Your task to perform on an android device: Search for the best selling TV on Best Buy. Image 0: 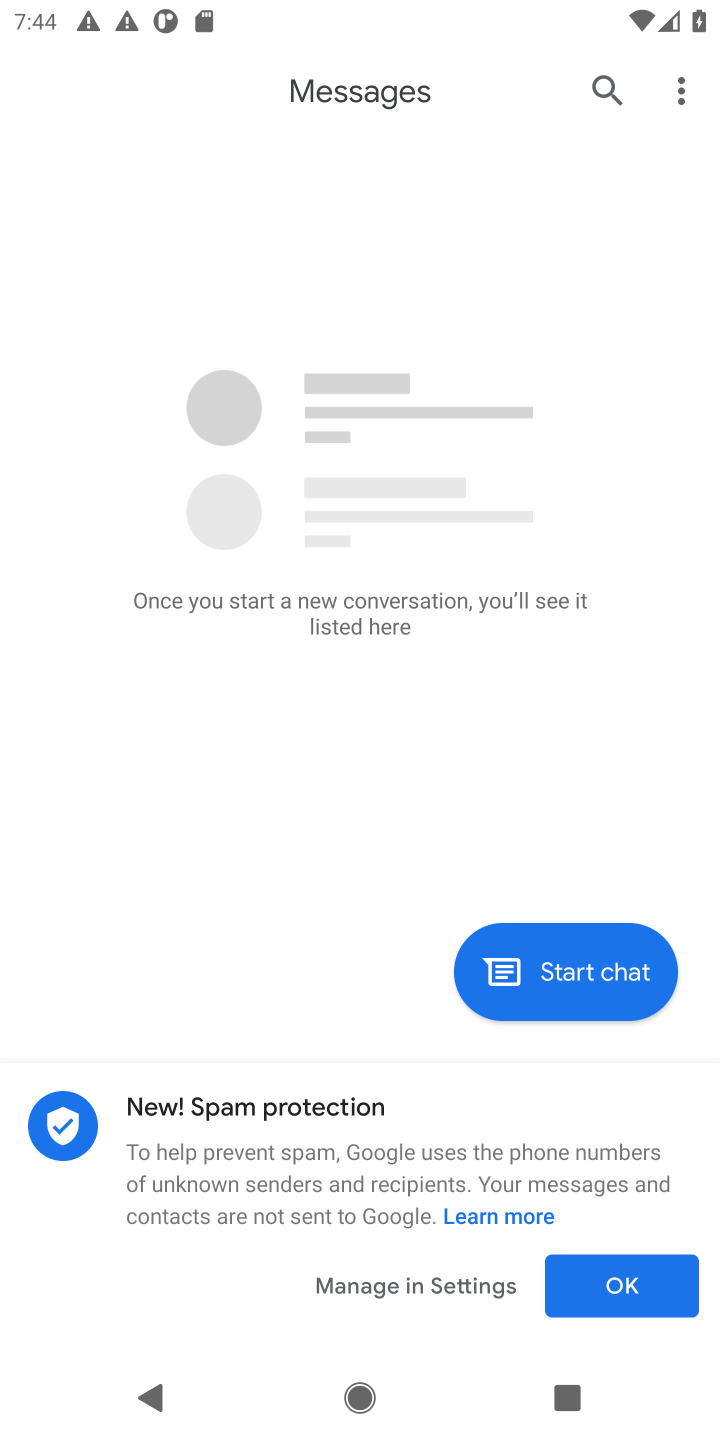
Step 0: press home button
Your task to perform on an android device: Search for the best selling TV on Best Buy. Image 1: 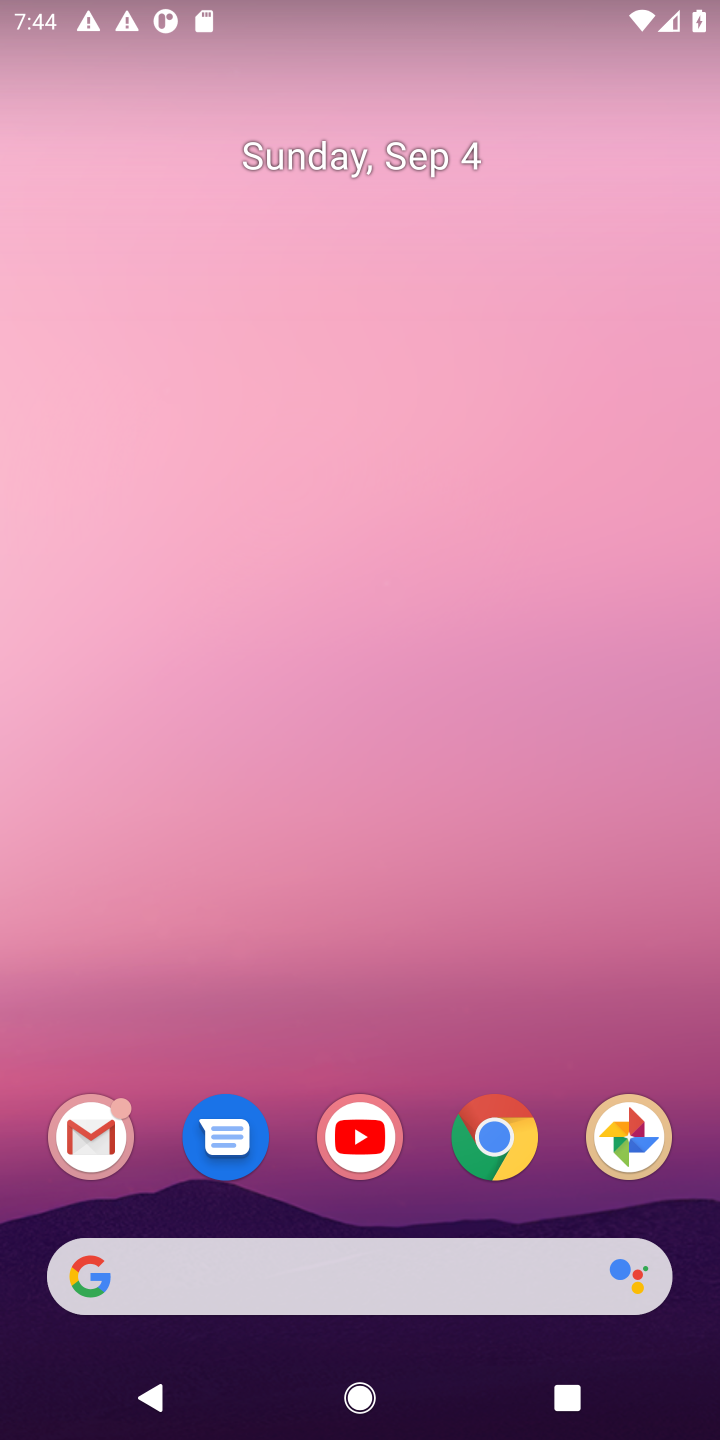
Step 1: click (496, 1140)
Your task to perform on an android device: Search for the best selling TV on Best Buy. Image 2: 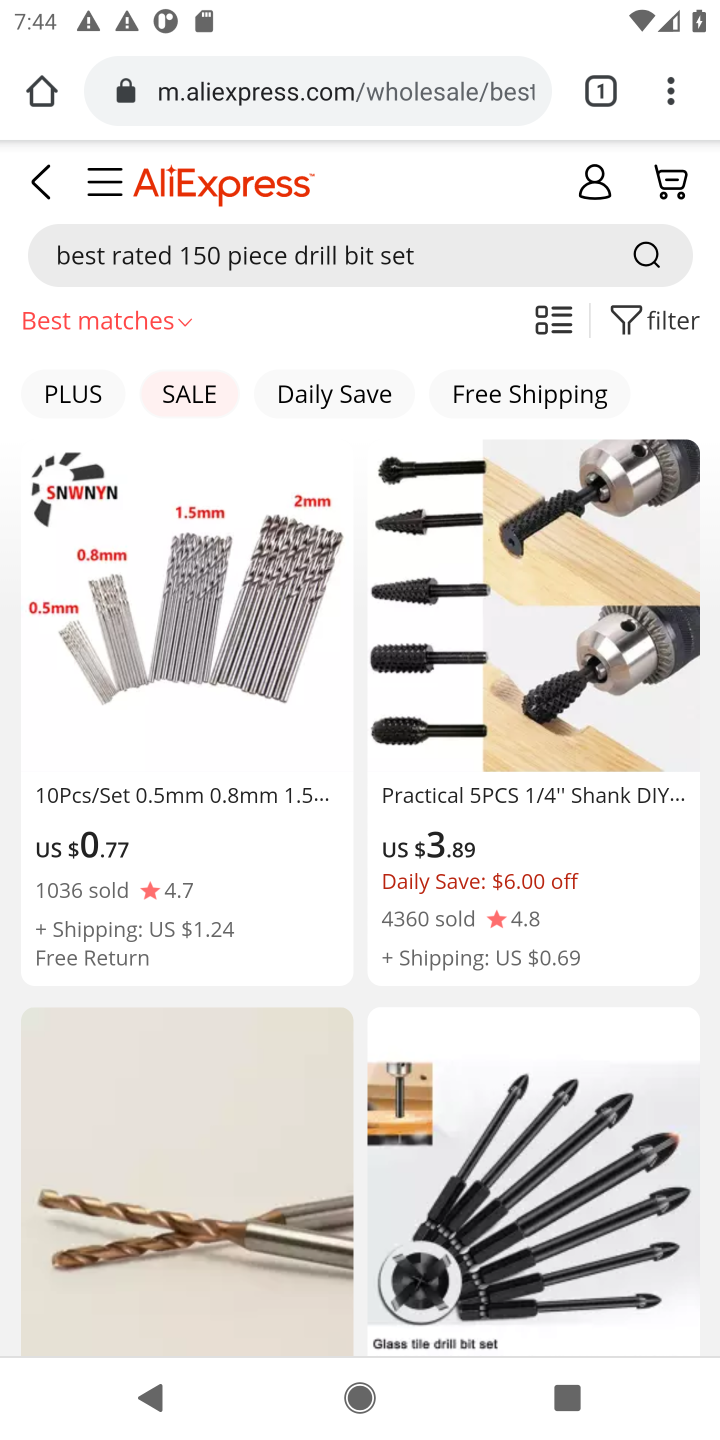
Step 2: click (396, 82)
Your task to perform on an android device: Search for the best selling TV on Best Buy. Image 3: 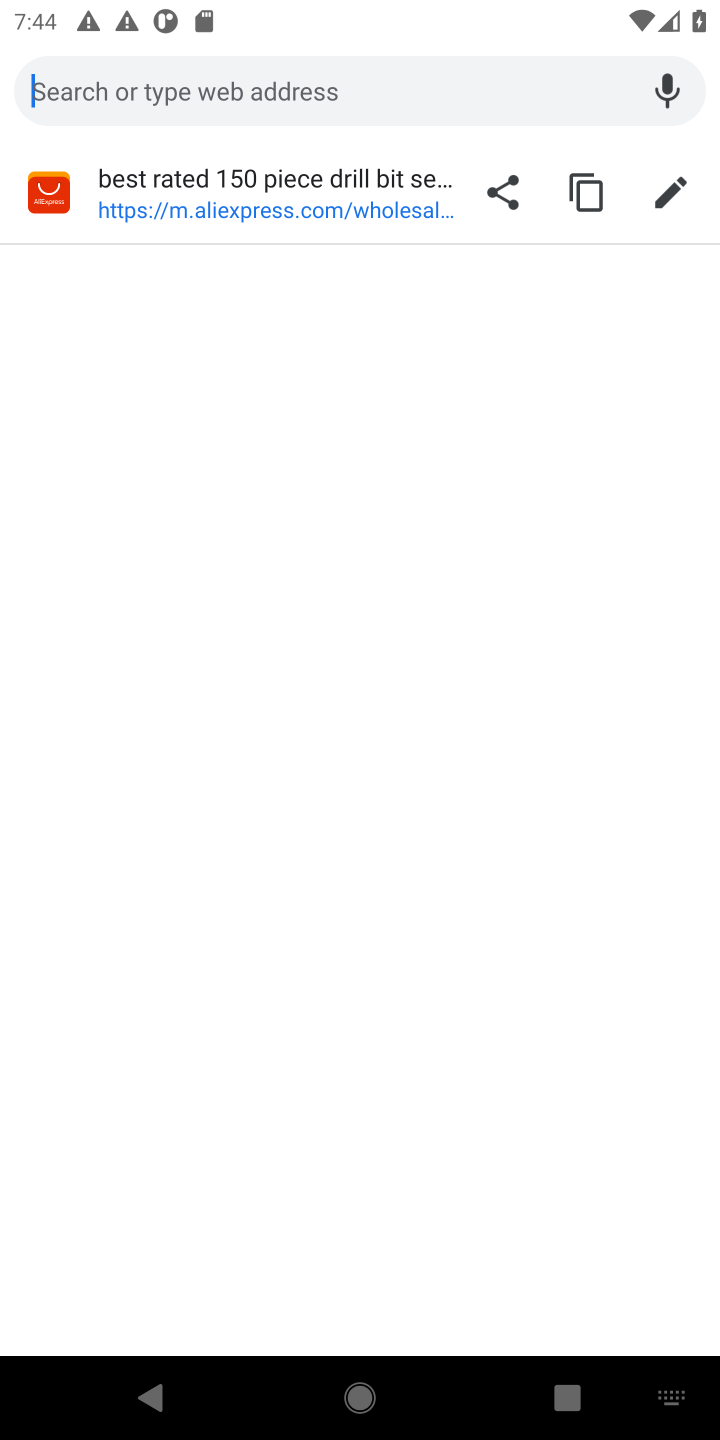
Step 3: type "Best Buy"
Your task to perform on an android device: Search for the best selling TV on Best Buy. Image 4: 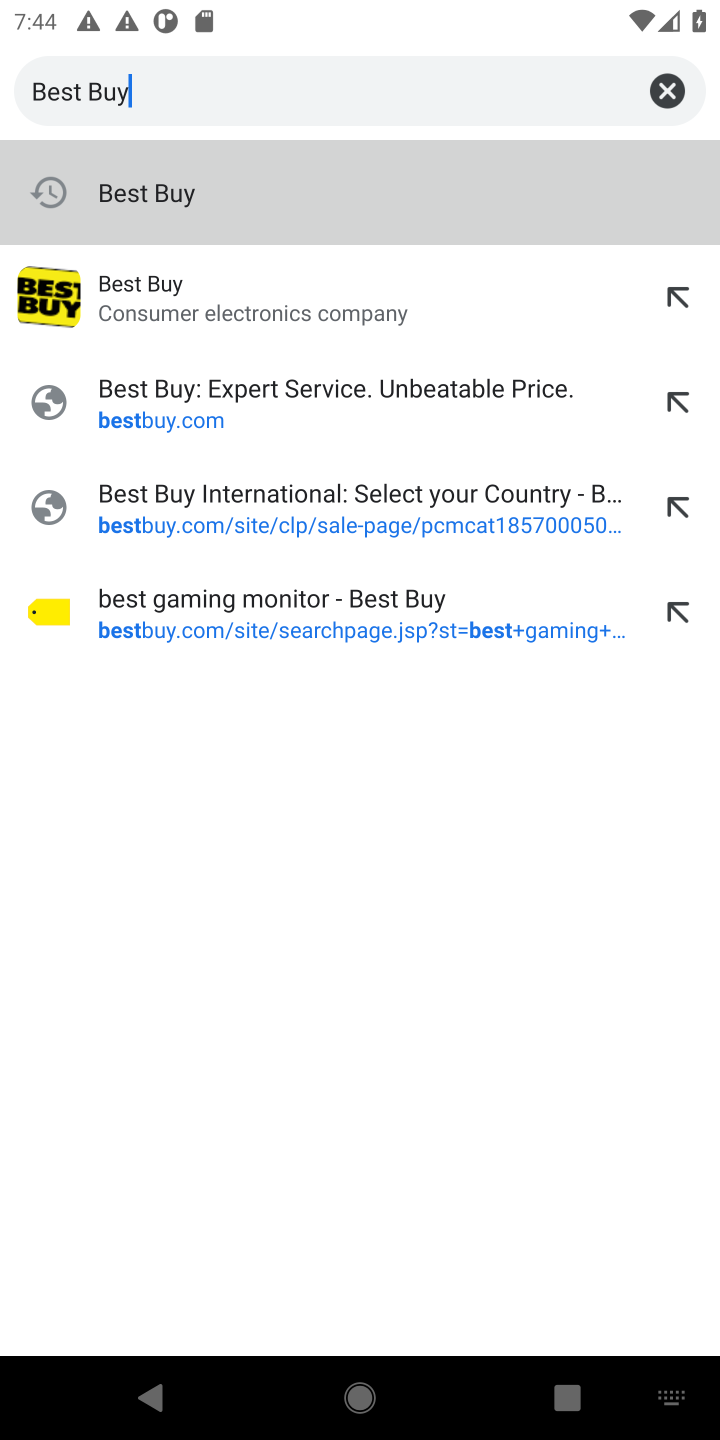
Step 4: click (267, 229)
Your task to perform on an android device: Search for the best selling TV on Best Buy. Image 5: 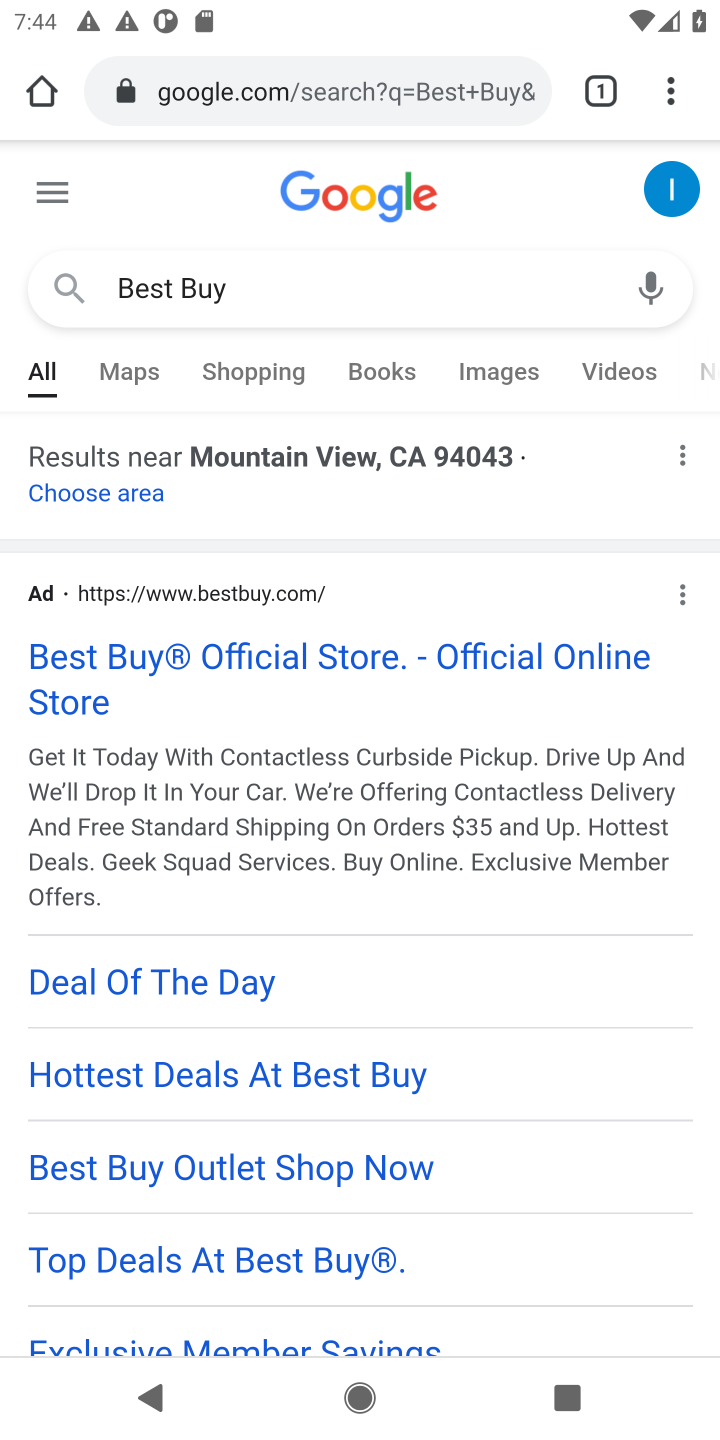
Step 5: drag from (500, 1175) to (476, 665)
Your task to perform on an android device: Search for the best selling TV on Best Buy. Image 6: 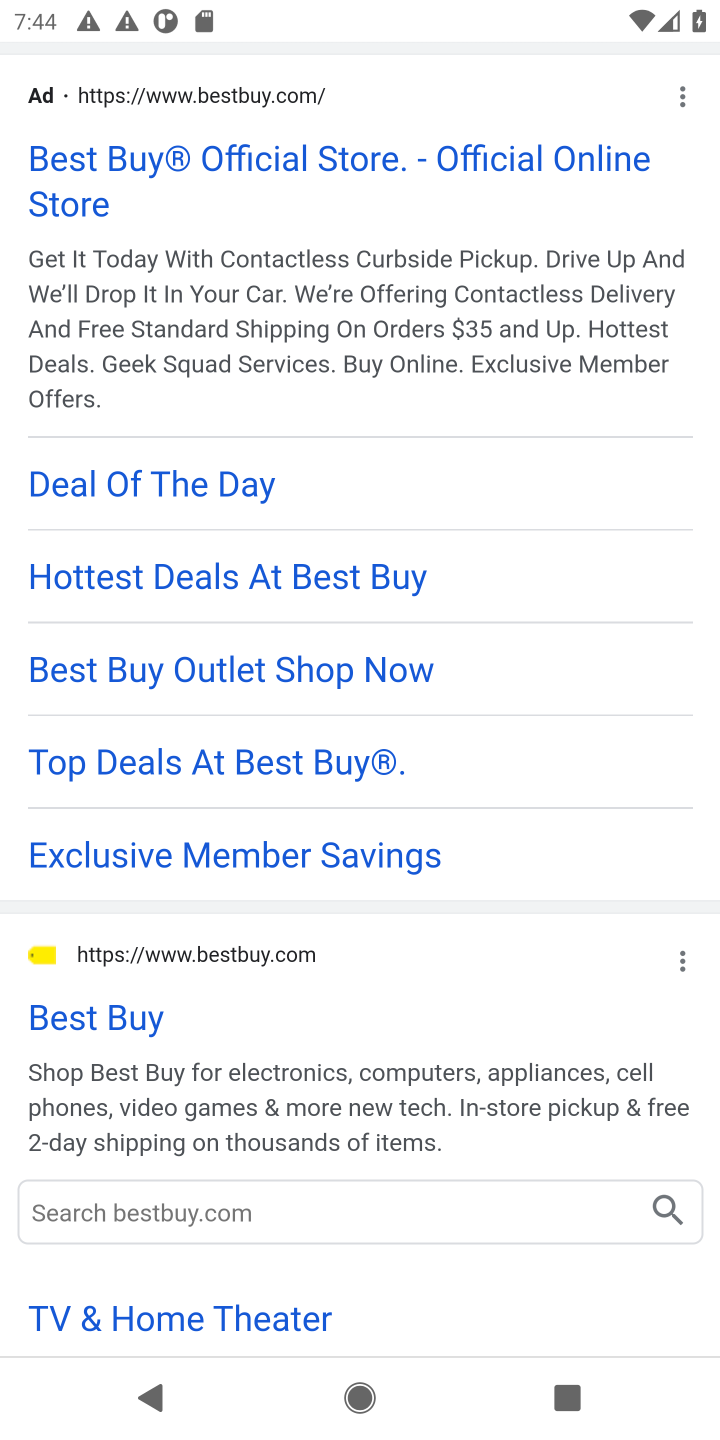
Step 6: click (137, 1025)
Your task to perform on an android device: Search for the best selling TV on Best Buy. Image 7: 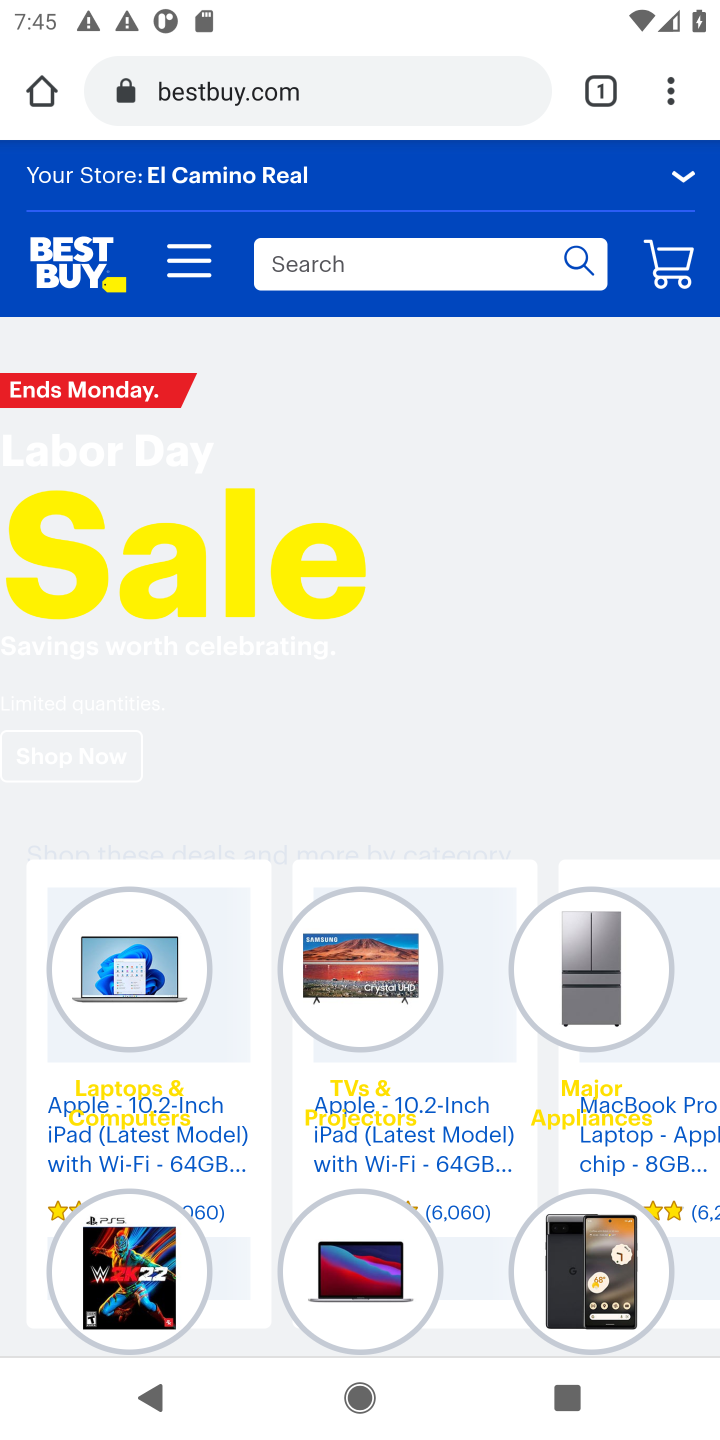
Step 7: click (461, 274)
Your task to perform on an android device: Search for the best selling TV on Best Buy. Image 8: 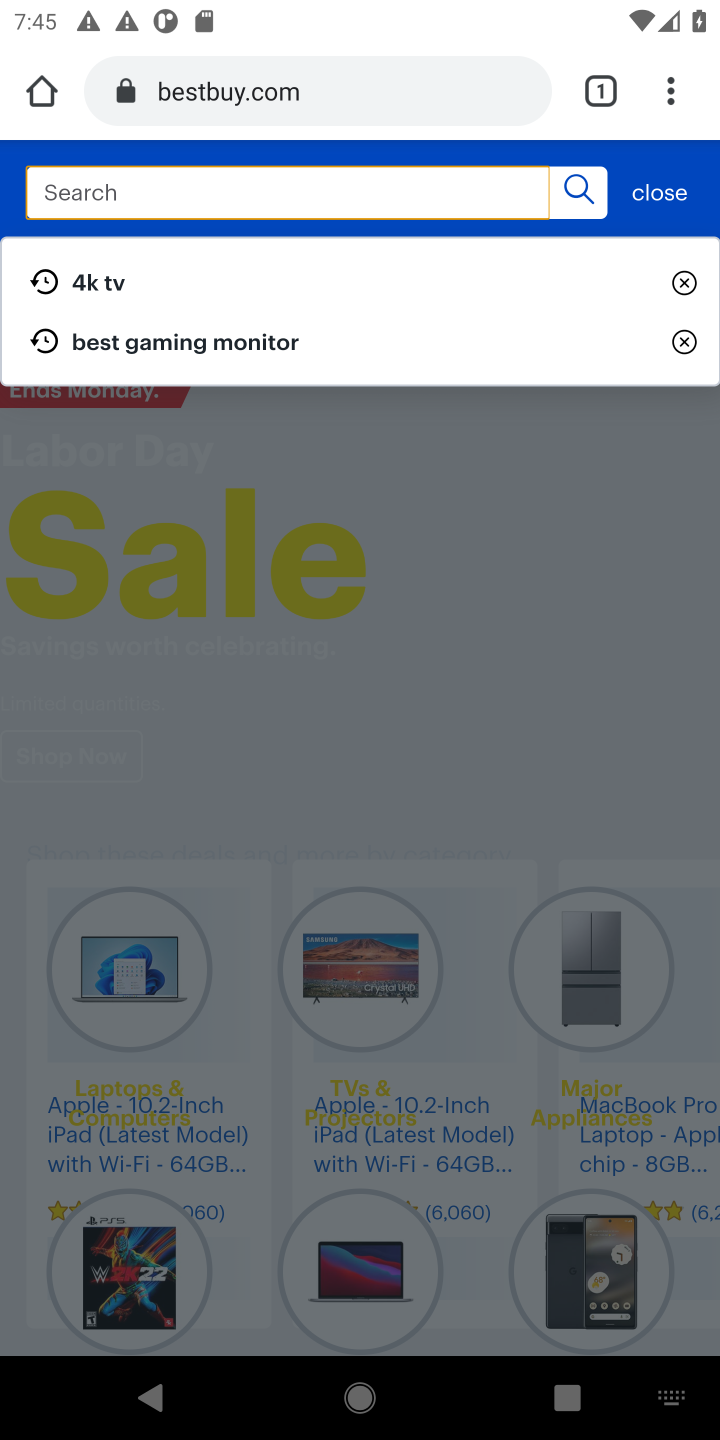
Step 8: type " best selling TV"
Your task to perform on an android device: Search for the best selling TV on Best Buy. Image 9: 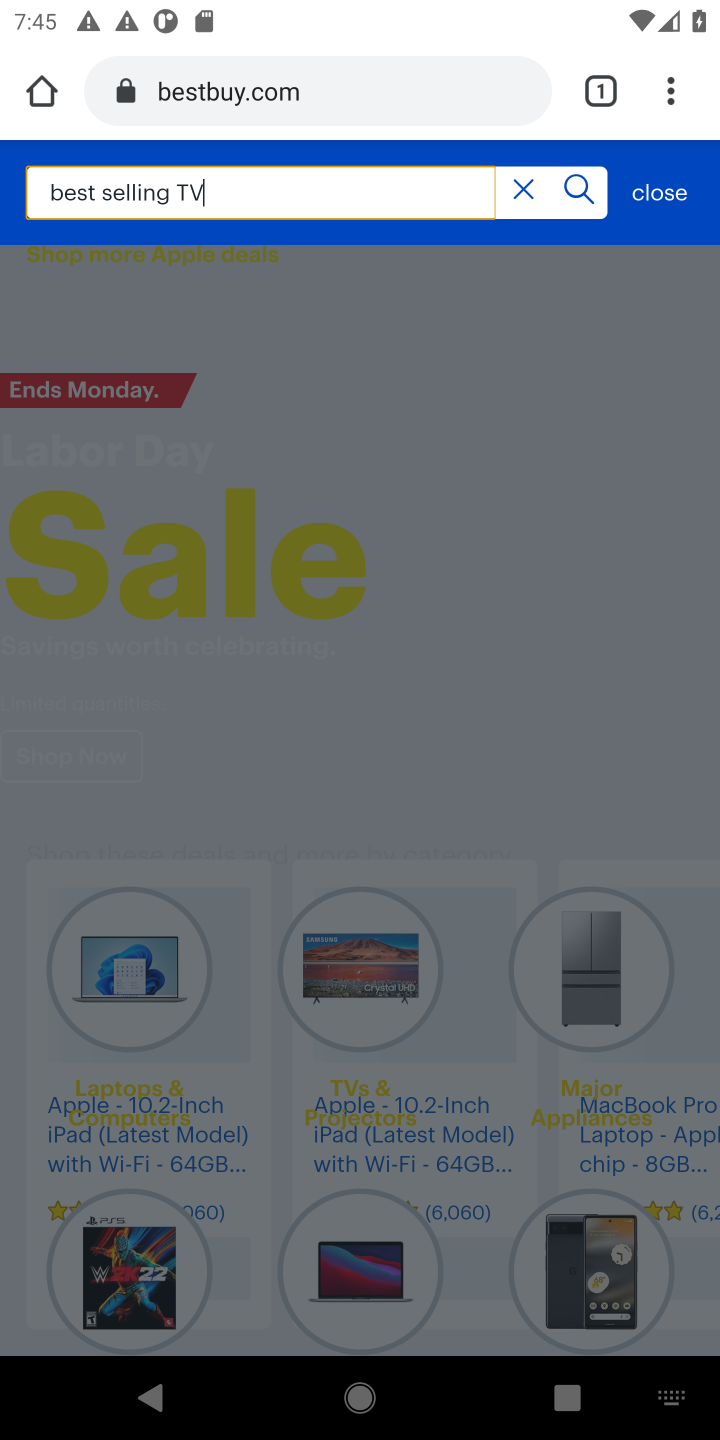
Step 9: click (593, 194)
Your task to perform on an android device: Search for the best selling TV on Best Buy. Image 10: 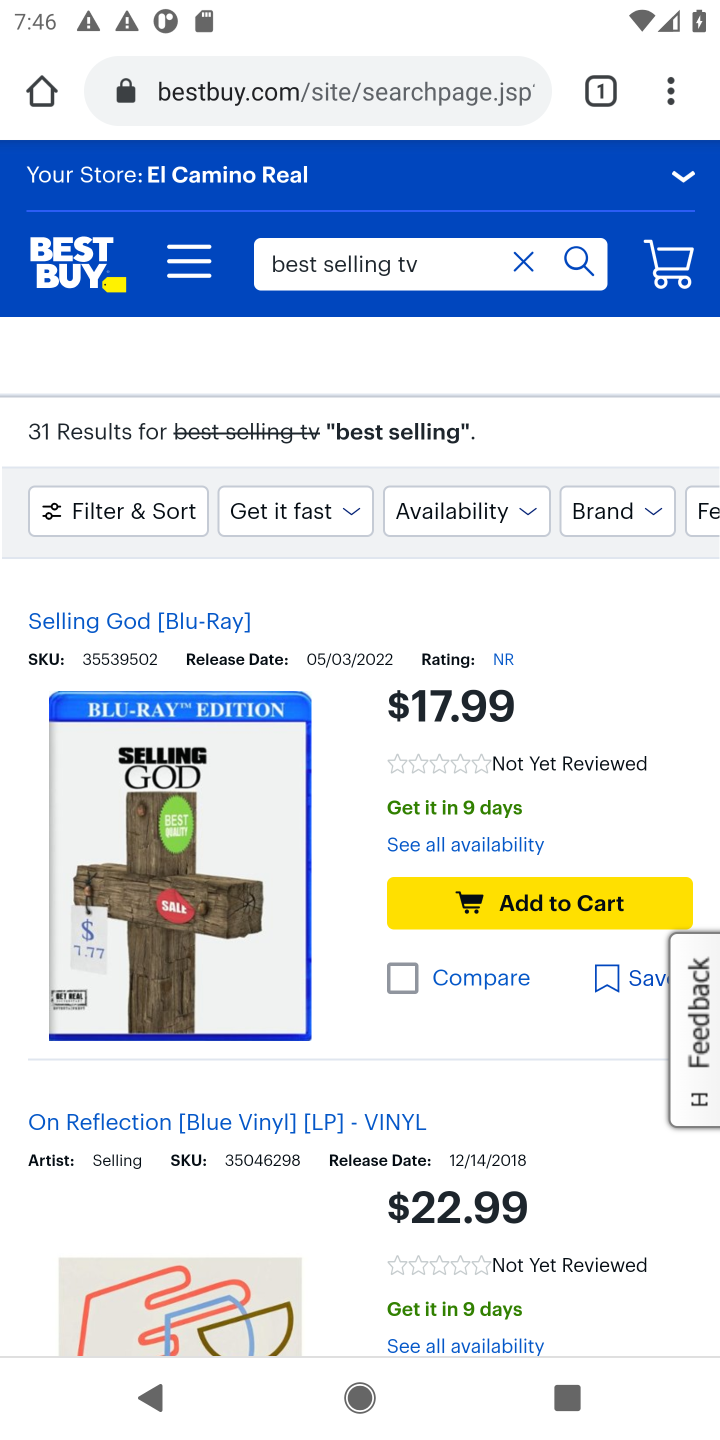
Step 10: task complete